Your task to perform on an android device: Open notification settings Image 0: 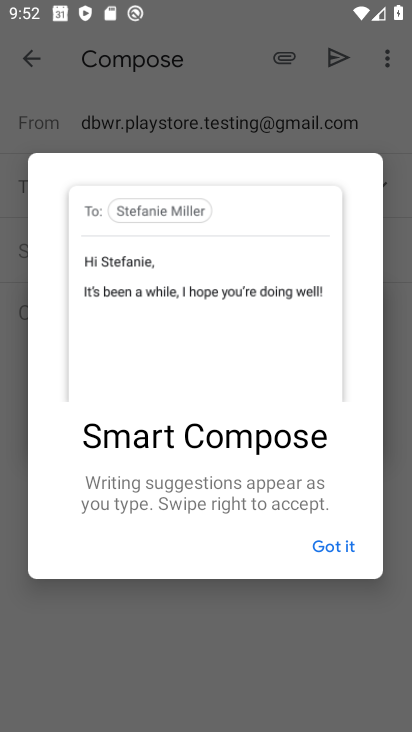
Step 0: drag from (250, 540) to (256, 293)
Your task to perform on an android device: Open notification settings Image 1: 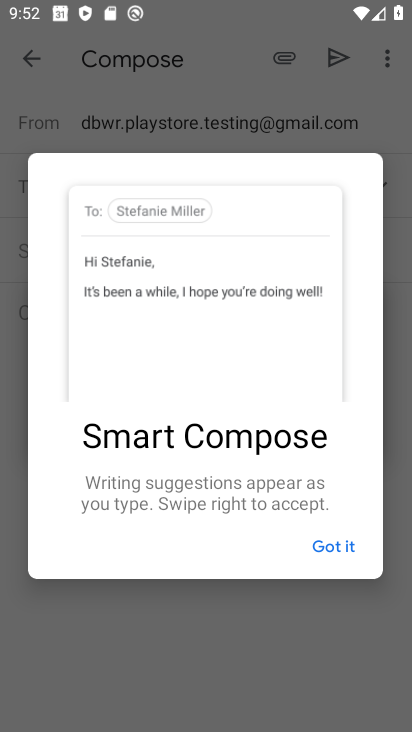
Step 1: press home button
Your task to perform on an android device: Open notification settings Image 2: 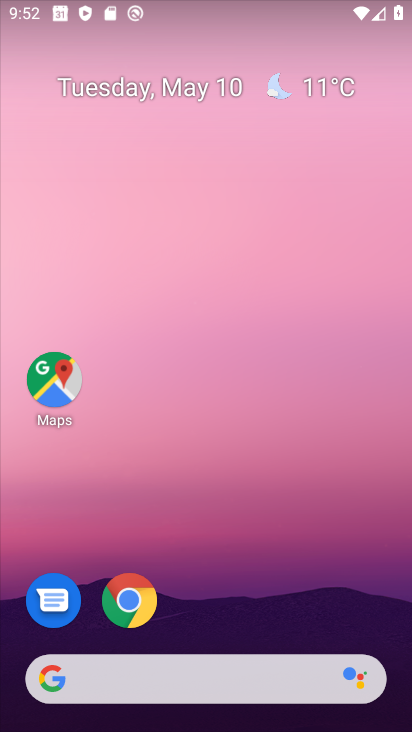
Step 2: drag from (311, 567) to (316, 122)
Your task to perform on an android device: Open notification settings Image 3: 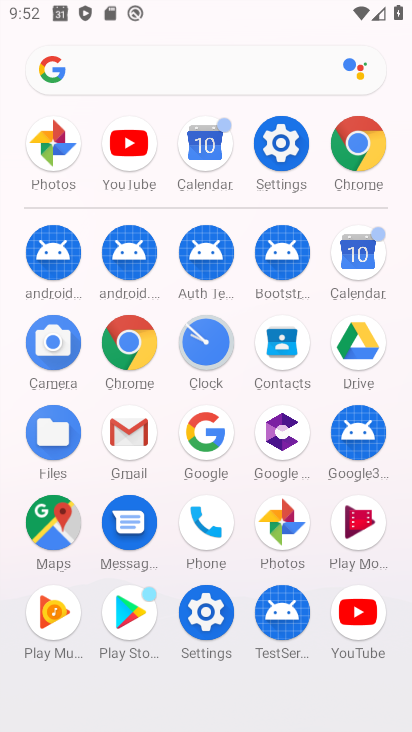
Step 3: click (287, 160)
Your task to perform on an android device: Open notification settings Image 4: 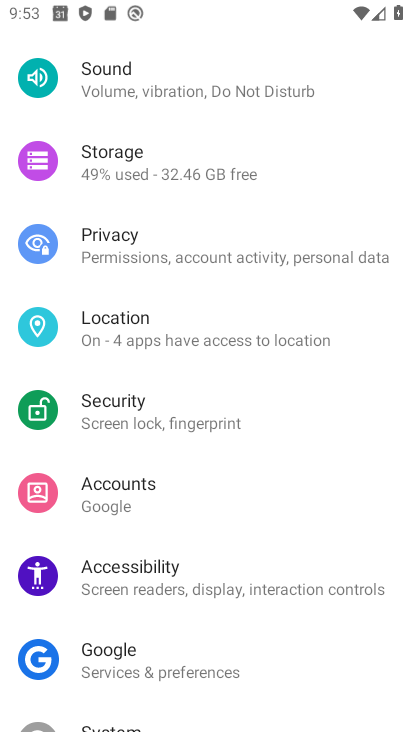
Step 4: drag from (176, 202) to (206, 566)
Your task to perform on an android device: Open notification settings Image 5: 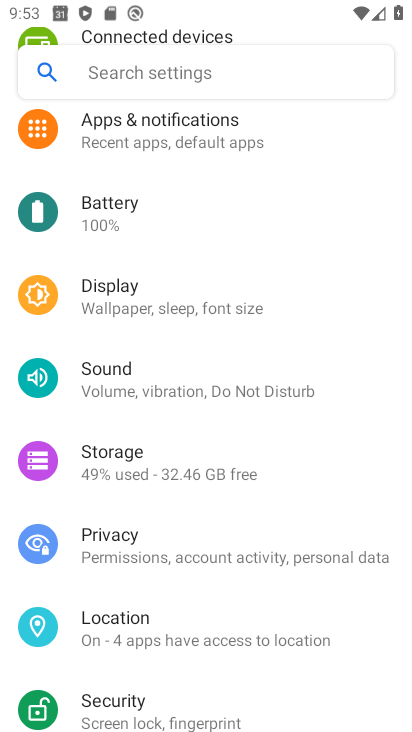
Step 5: click (205, 137)
Your task to perform on an android device: Open notification settings Image 6: 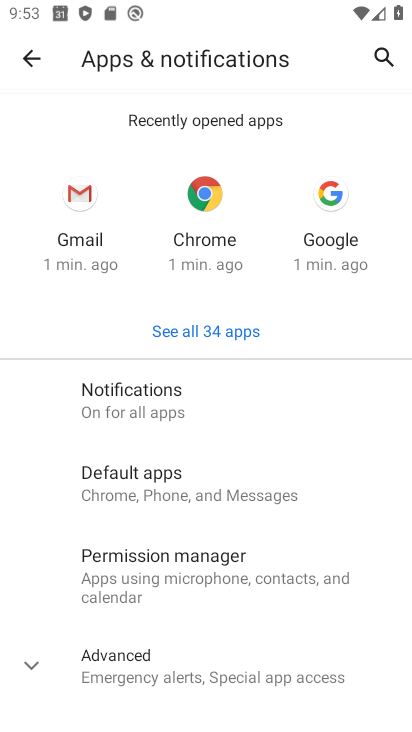
Step 6: click (154, 401)
Your task to perform on an android device: Open notification settings Image 7: 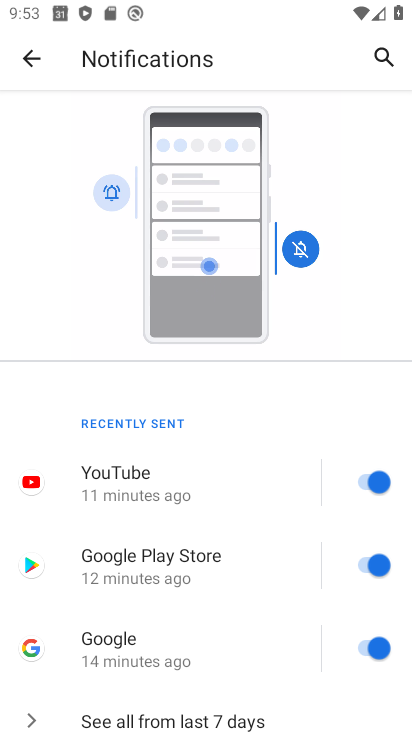
Step 7: task complete